Your task to perform on an android device: change the clock display to analog Image 0: 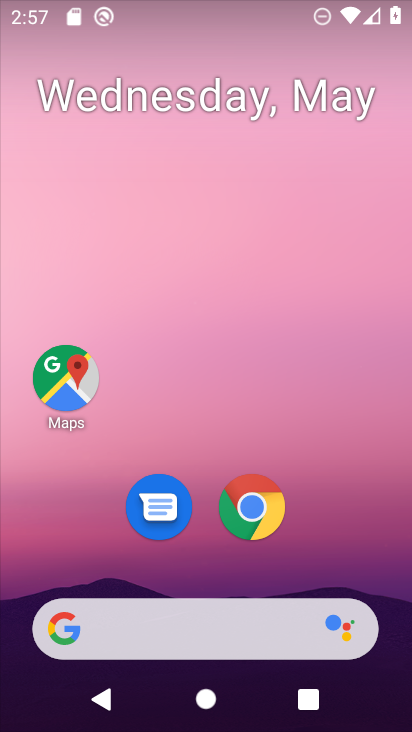
Step 0: drag from (252, 567) to (284, 136)
Your task to perform on an android device: change the clock display to analog Image 1: 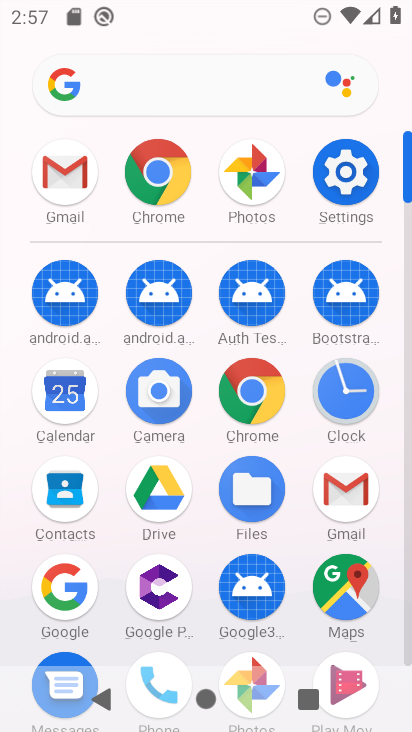
Step 1: click (355, 399)
Your task to perform on an android device: change the clock display to analog Image 2: 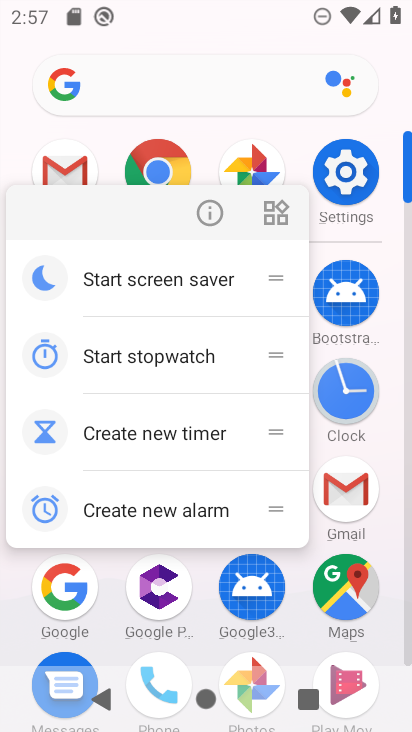
Step 2: click (364, 401)
Your task to perform on an android device: change the clock display to analog Image 3: 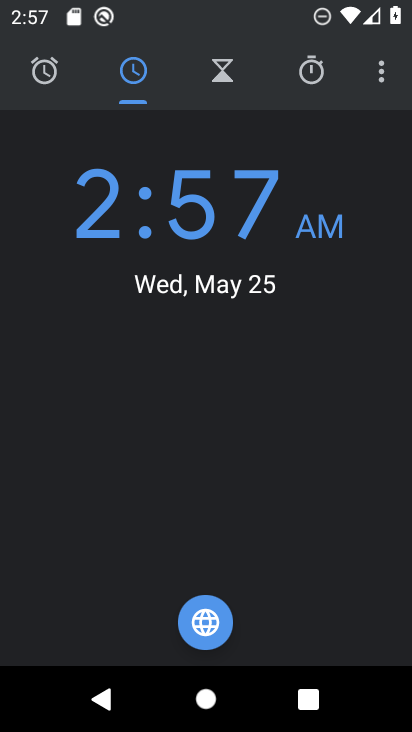
Step 3: click (387, 73)
Your task to perform on an android device: change the clock display to analog Image 4: 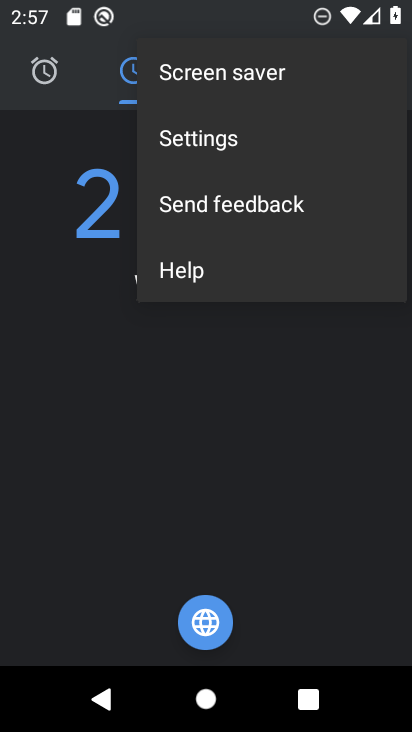
Step 4: click (195, 139)
Your task to perform on an android device: change the clock display to analog Image 5: 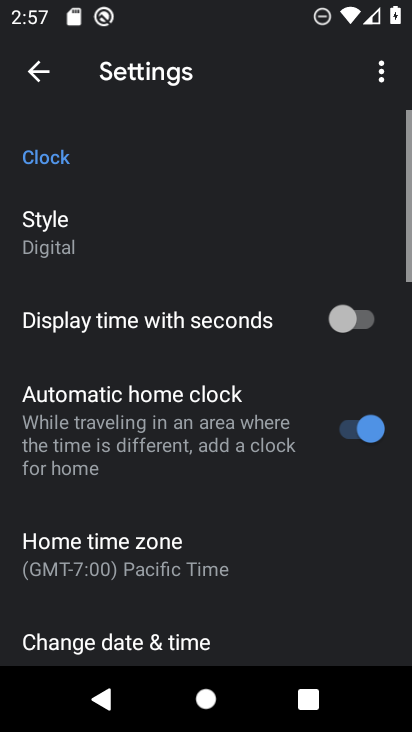
Step 5: click (124, 248)
Your task to perform on an android device: change the clock display to analog Image 6: 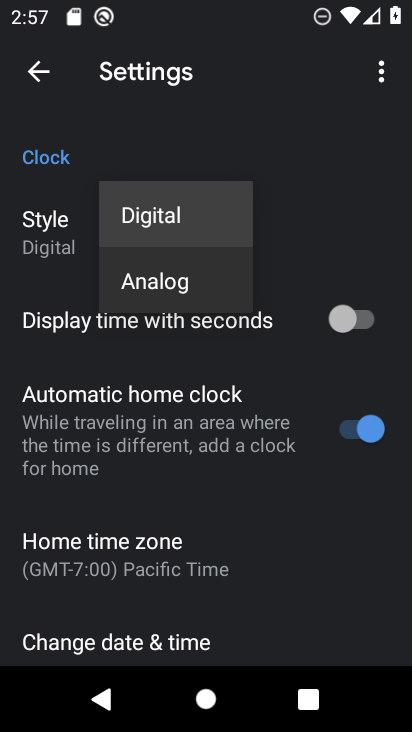
Step 6: click (137, 287)
Your task to perform on an android device: change the clock display to analog Image 7: 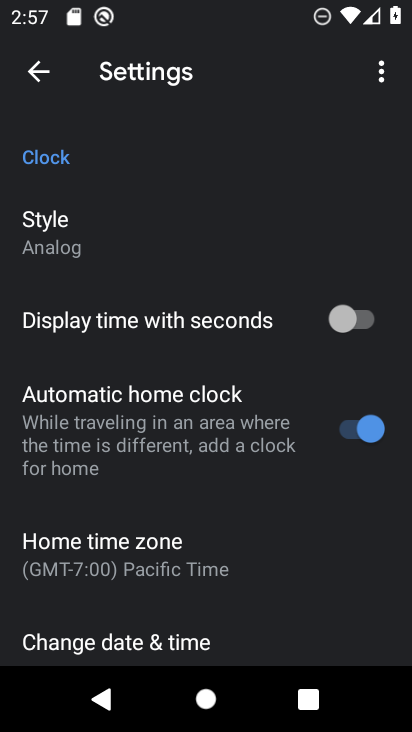
Step 7: task complete